Your task to perform on an android device: Find coffee shops on Maps Image 0: 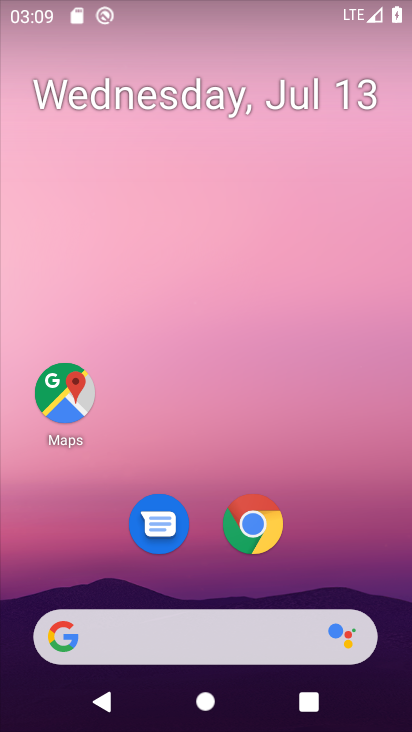
Step 0: click (60, 396)
Your task to perform on an android device: Find coffee shops on Maps Image 1: 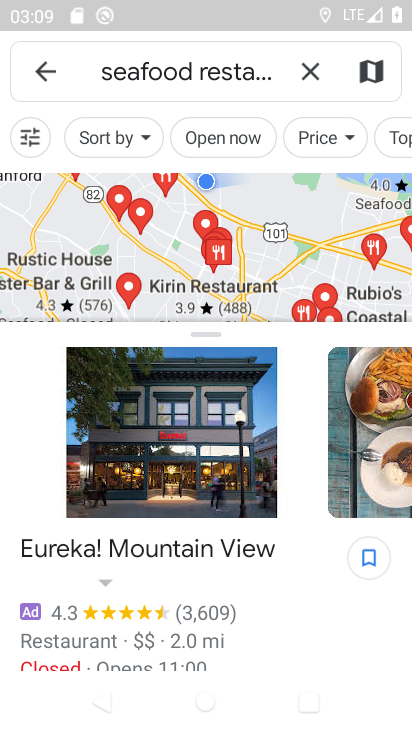
Step 1: click (310, 71)
Your task to perform on an android device: Find coffee shops on Maps Image 2: 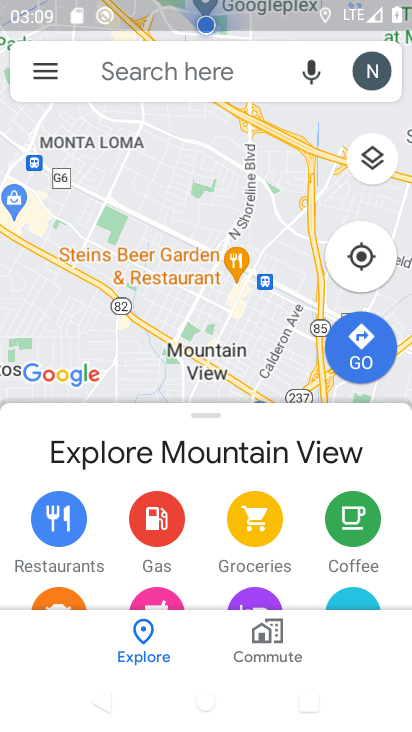
Step 2: click (218, 77)
Your task to perform on an android device: Find coffee shops on Maps Image 3: 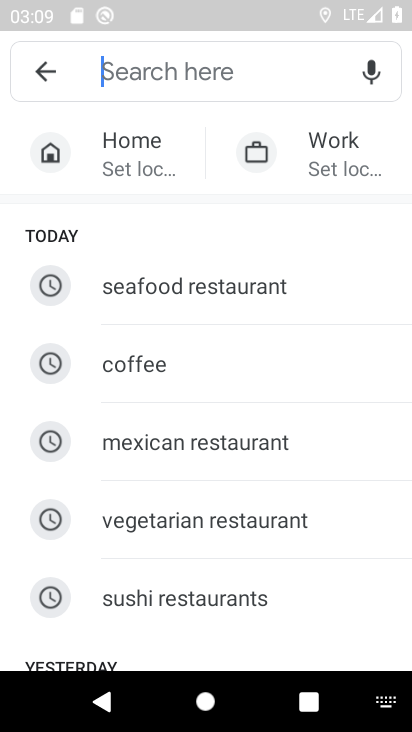
Step 3: click (151, 355)
Your task to perform on an android device: Find coffee shops on Maps Image 4: 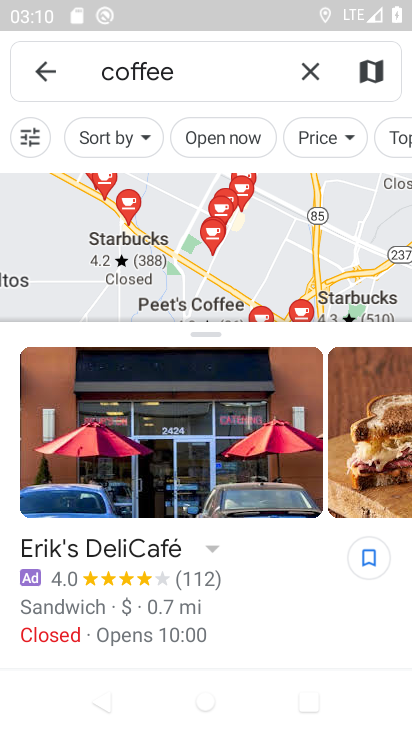
Step 4: task complete